Your task to perform on an android device: Open the stopwatch Image 0: 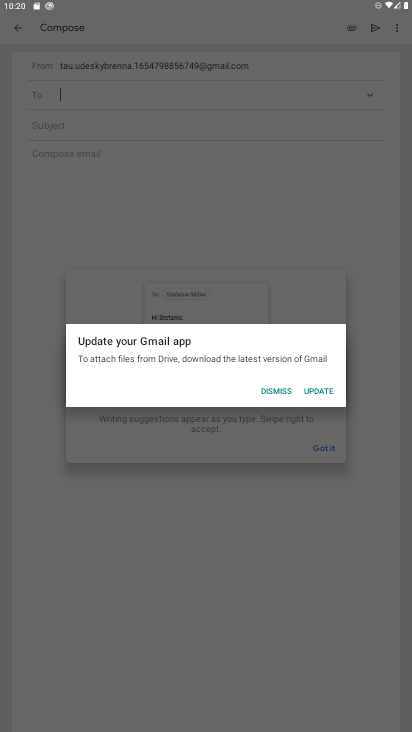
Step 0: press home button
Your task to perform on an android device: Open the stopwatch Image 1: 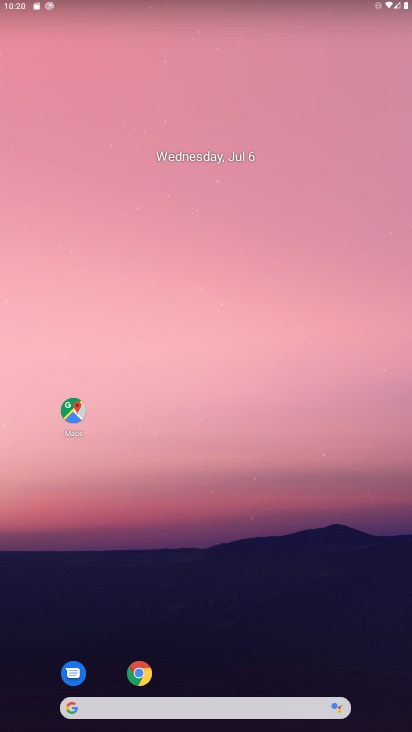
Step 1: drag from (211, 677) to (231, 153)
Your task to perform on an android device: Open the stopwatch Image 2: 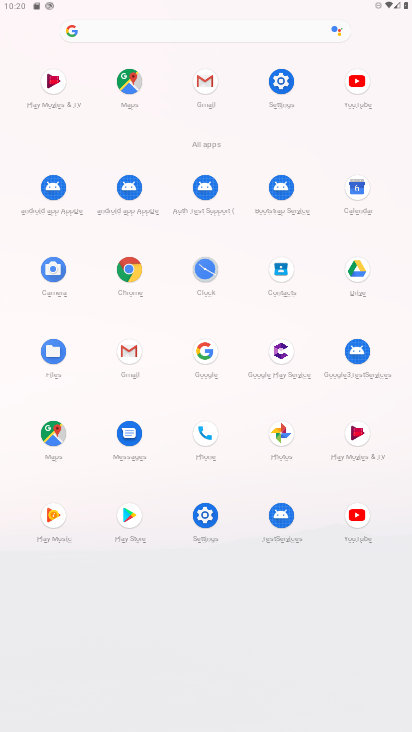
Step 2: click (211, 269)
Your task to perform on an android device: Open the stopwatch Image 3: 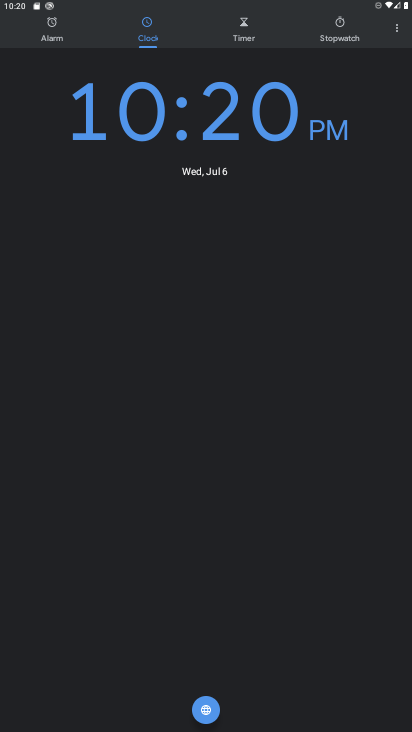
Step 3: click (362, 20)
Your task to perform on an android device: Open the stopwatch Image 4: 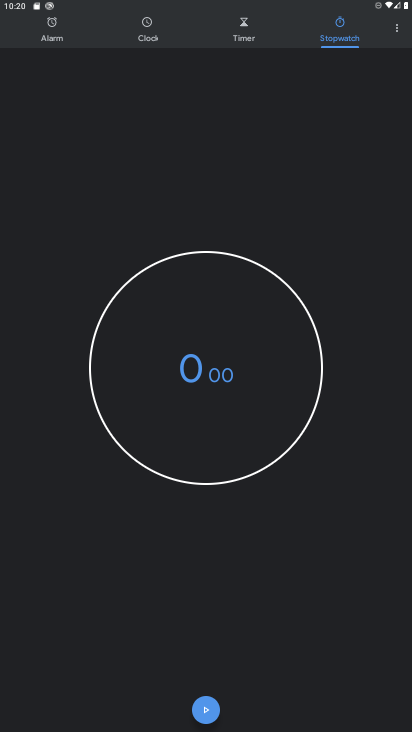
Step 4: task complete